Your task to perform on an android device: Check the news Image 0: 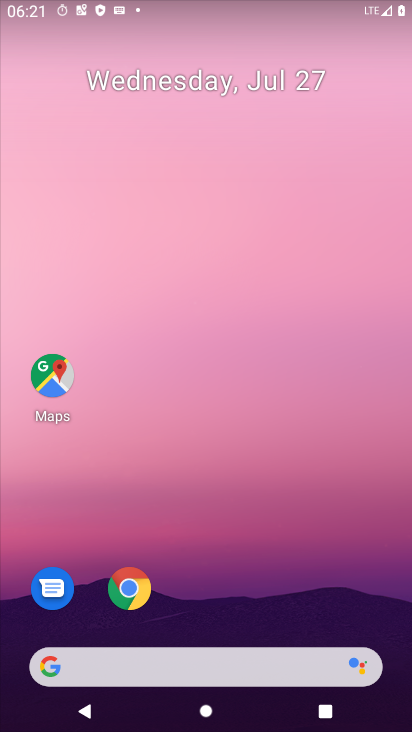
Step 0: click (101, 411)
Your task to perform on an android device: Check the news Image 1: 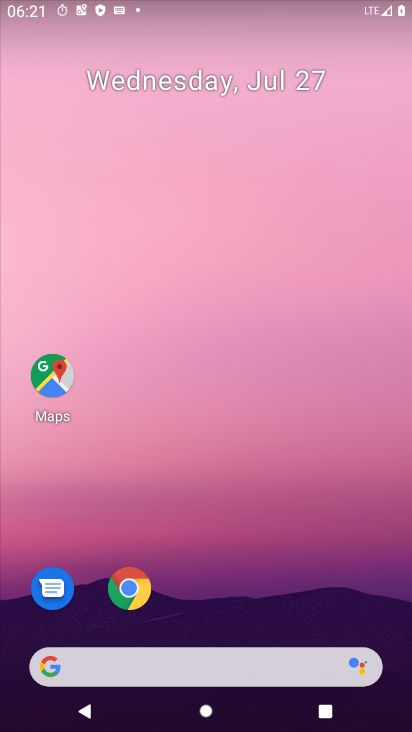
Step 1: drag from (145, 652) to (198, 24)
Your task to perform on an android device: Check the news Image 2: 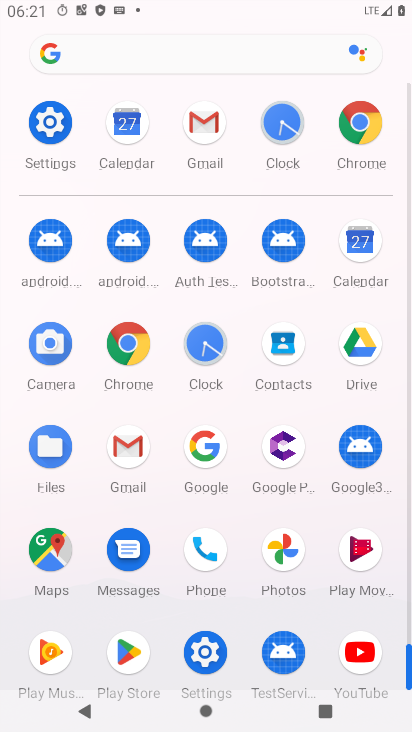
Step 2: click (121, 342)
Your task to perform on an android device: Check the news Image 3: 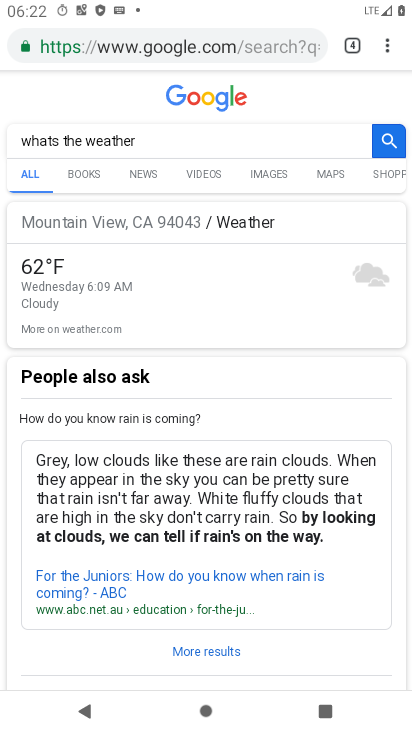
Step 3: click (256, 48)
Your task to perform on an android device: Check the news Image 4: 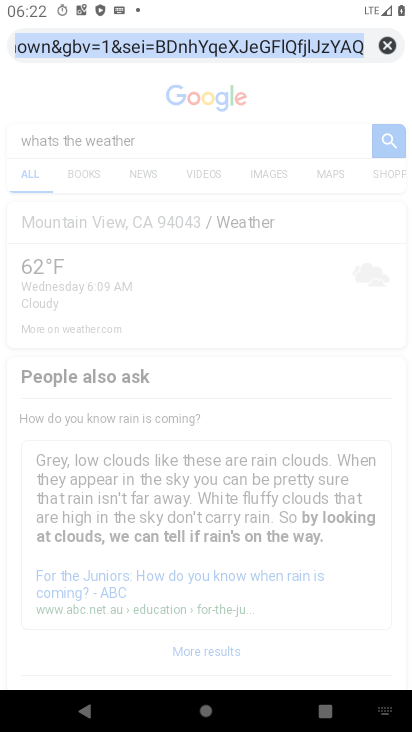
Step 4: type "check the news"
Your task to perform on an android device: Check the news Image 5: 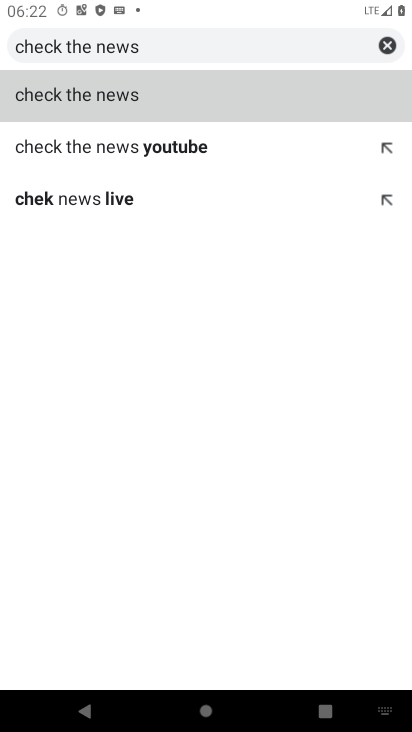
Step 5: click (188, 94)
Your task to perform on an android device: Check the news Image 6: 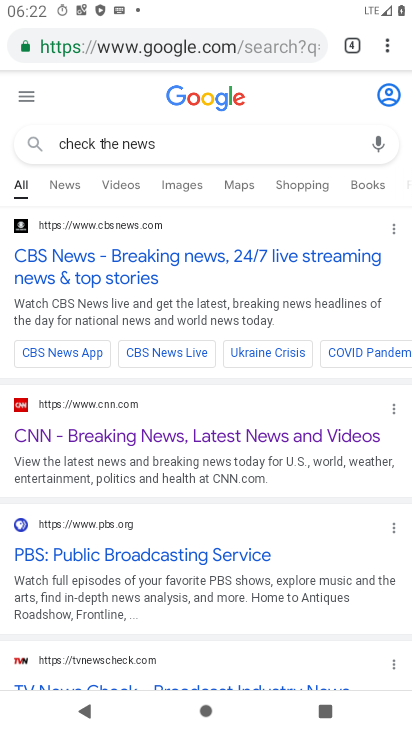
Step 6: task complete